Your task to perform on an android device: Search for the best Nike running shoes on Nike.com Image 0: 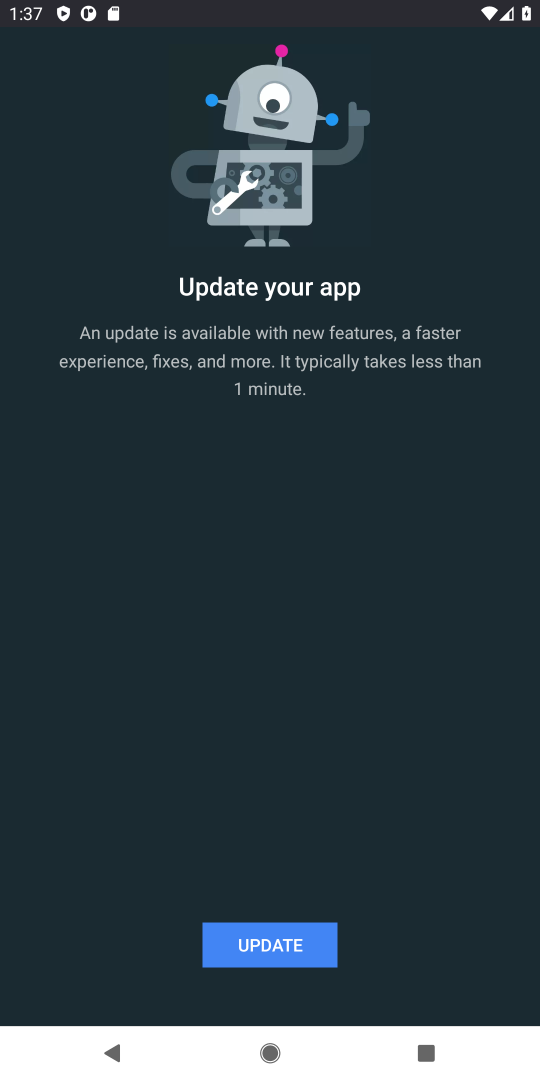
Step 0: press home button
Your task to perform on an android device: Search for the best Nike running shoes on Nike.com Image 1: 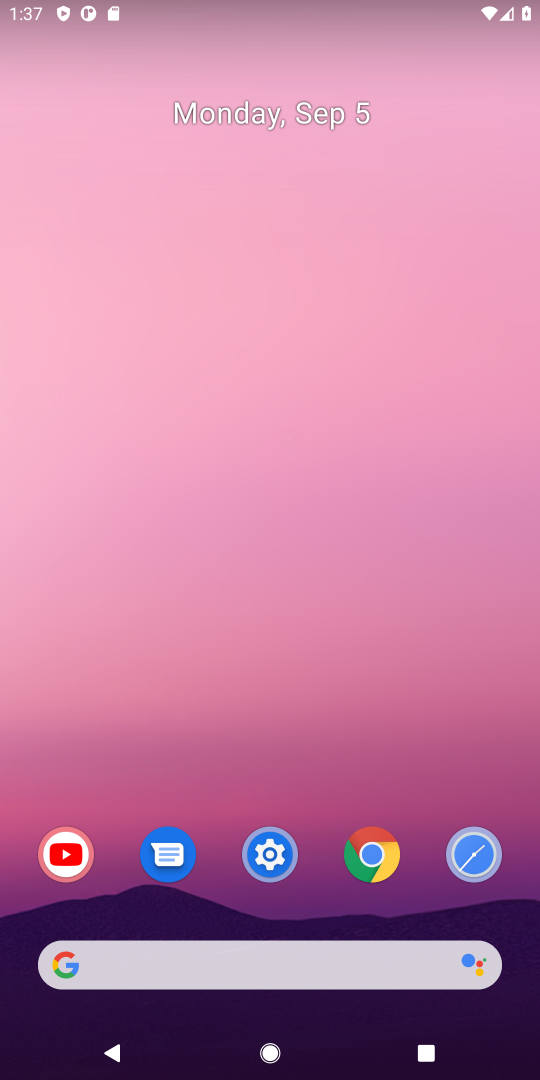
Step 1: click (155, 963)
Your task to perform on an android device: Search for the best Nike running shoes on Nike.com Image 2: 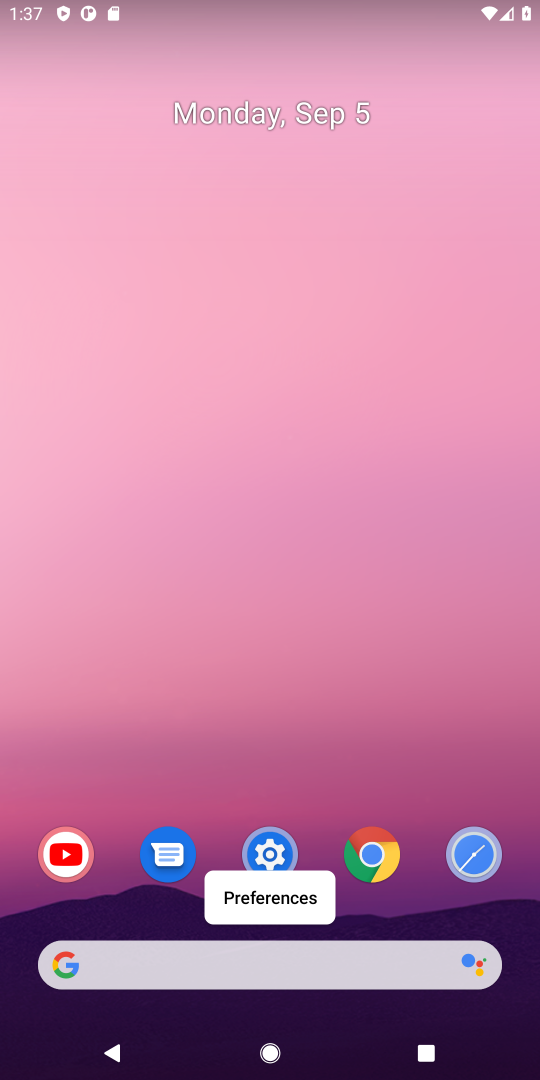
Step 2: click (390, 967)
Your task to perform on an android device: Search for the best Nike running shoes on Nike.com Image 3: 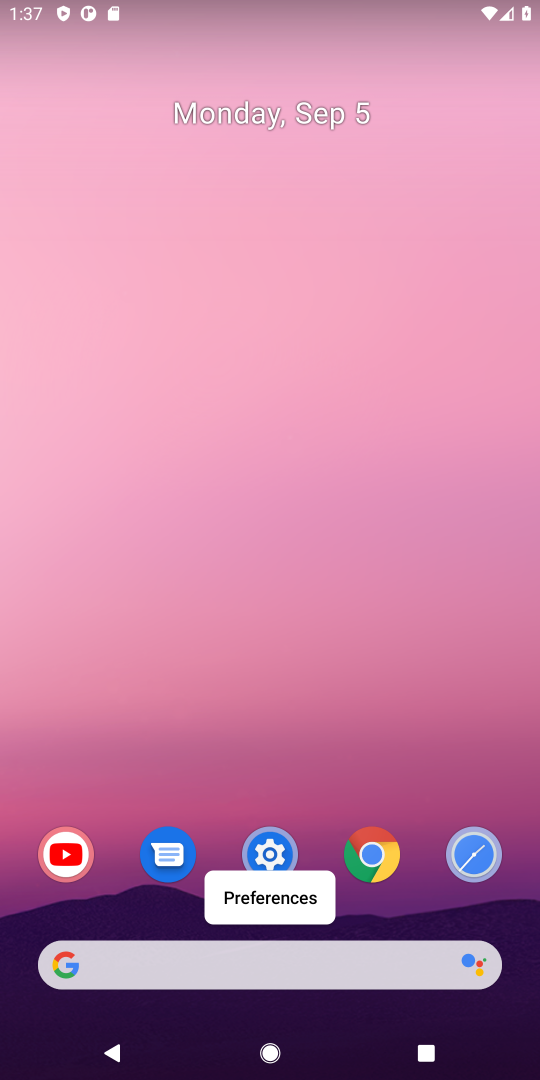
Step 3: click (348, 973)
Your task to perform on an android device: Search for the best Nike running shoes on Nike.com Image 4: 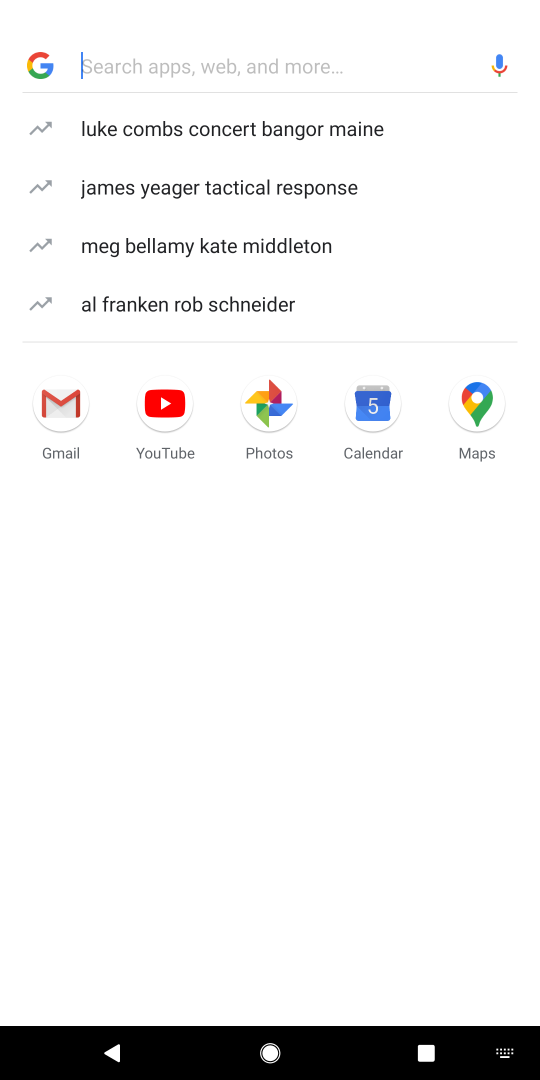
Step 4: type "Nike.com"
Your task to perform on an android device: Search for the best Nike running shoes on Nike.com Image 5: 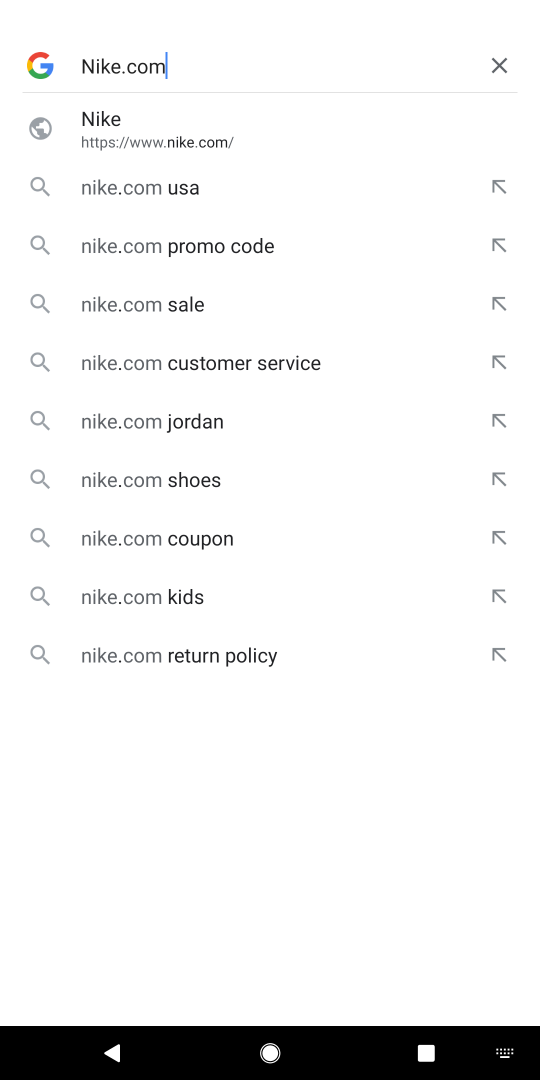
Step 5: type ""
Your task to perform on an android device: Search for the best Nike running shoes on Nike.com Image 6: 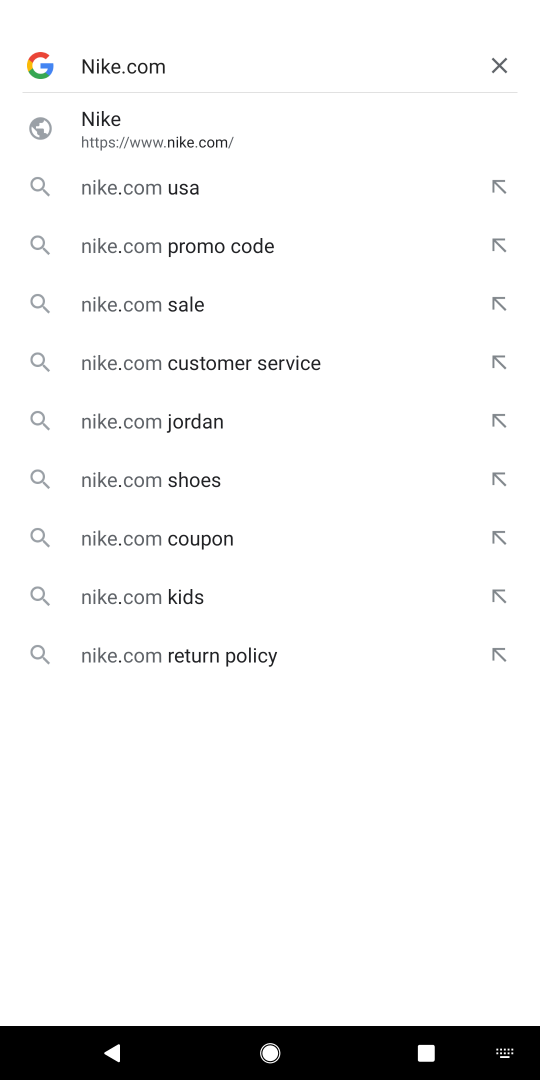
Step 6: click (217, 150)
Your task to perform on an android device: Search for the best Nike running shoes on Nike.com Image 7: 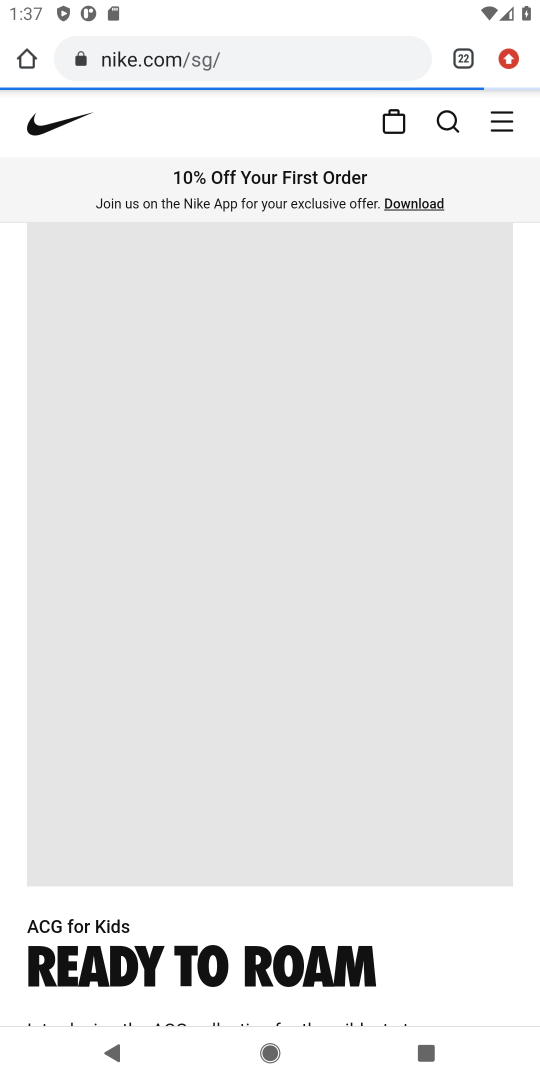
Step 7: click (441, 120)
Your task to perform on an android device: Search for the best Nike running shoes on Nike.com Image 8: 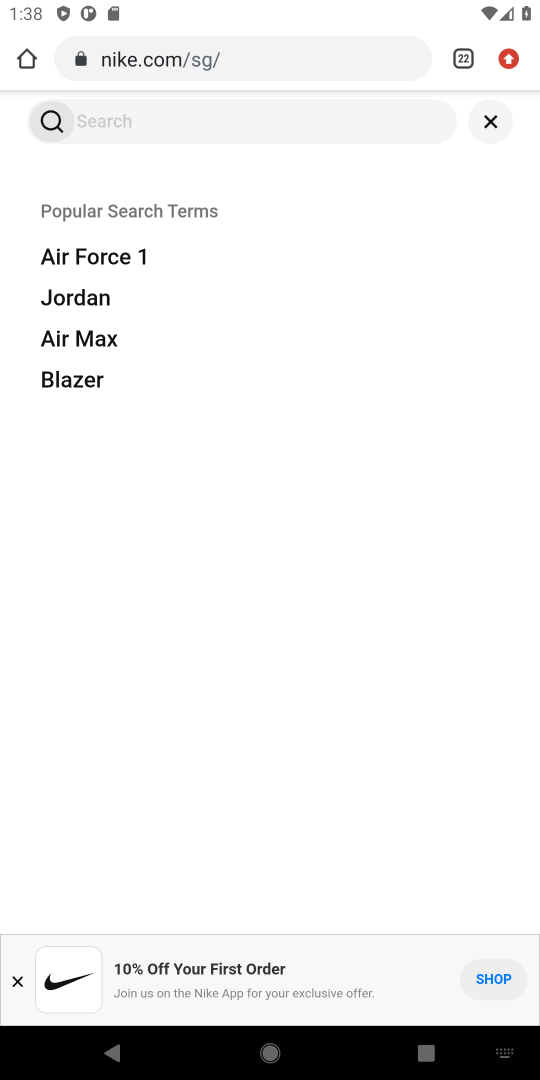
Step 8: type "Nike running shoes "
Your task to perform on an android device: Search for the best Nike running shoes on Nike.com Image 9: 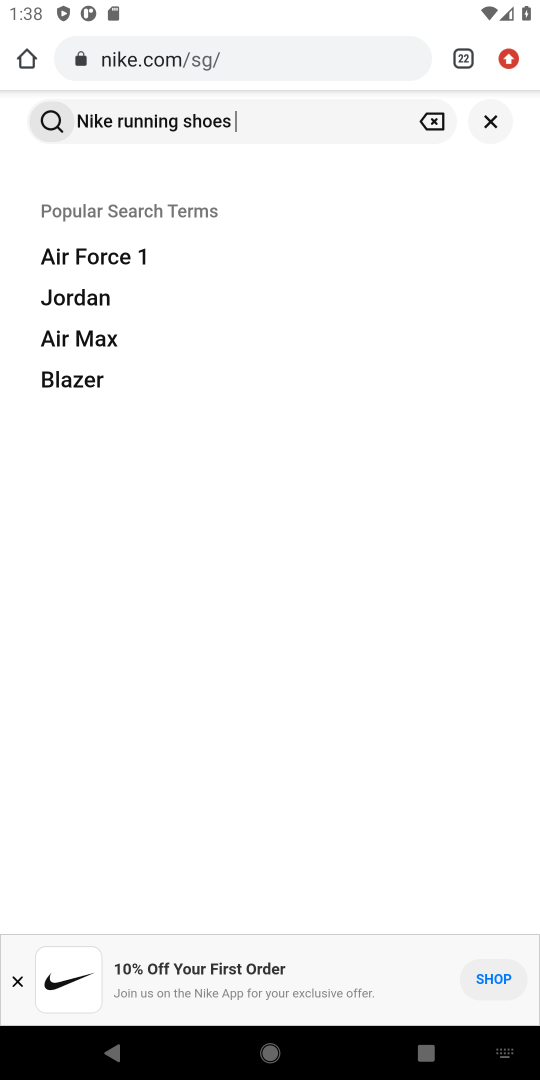
Step 9: type ""
Your task to perform on an android device: Search for the best Nike running shoes on Nike.com Image 10: 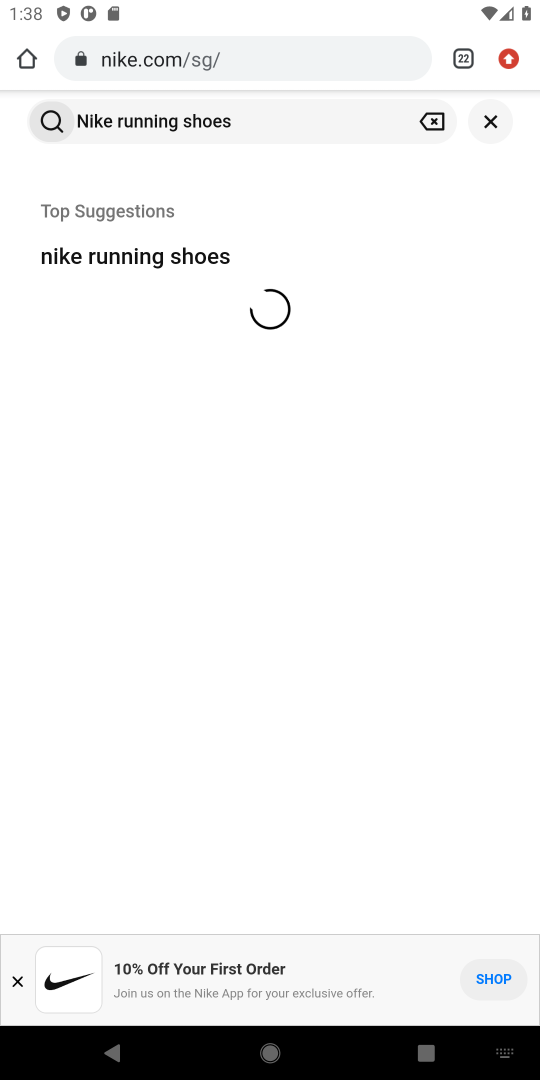
Step 10: click (161, 260)
Your task to perform on an android device: Search for the best Nike running shoes on Nike.com Image 11: 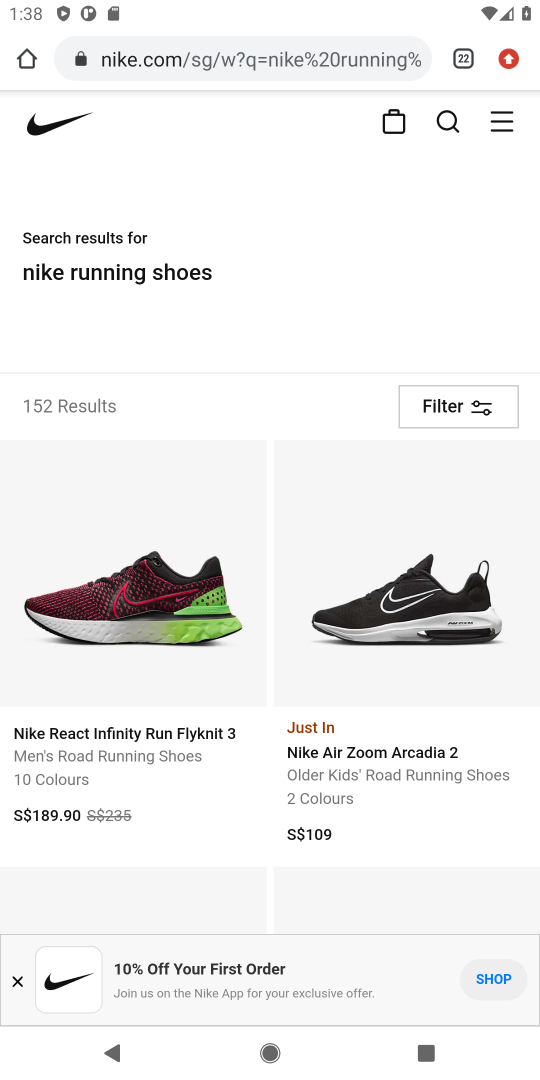
Step 11: task complete